Your task to perform on an android device: create a new album in the google photos Image 0: 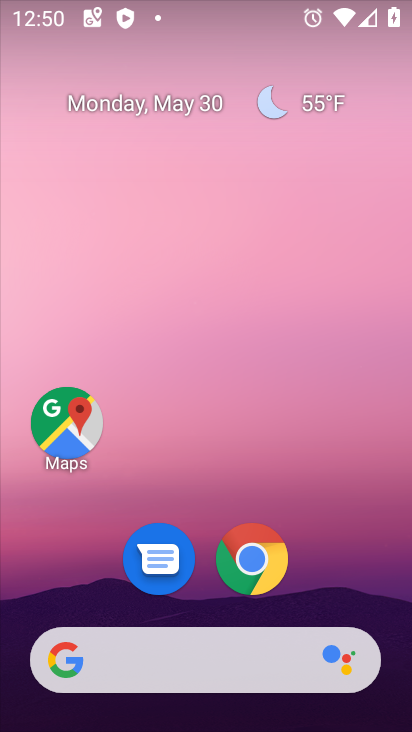
Step 0: drag from (176, 603) to (244, 98)
Your task to perform on an android device: create a new album in the google photos Image 1: 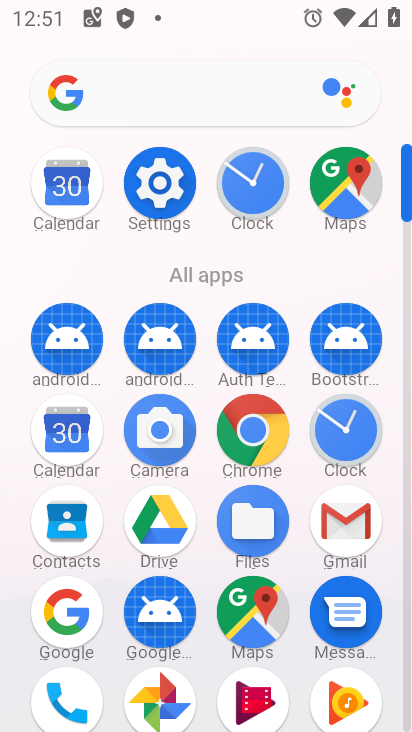
Step 1: click (163, 692)
Your task to perform on an android device: create a new album in the google photos Image 2: 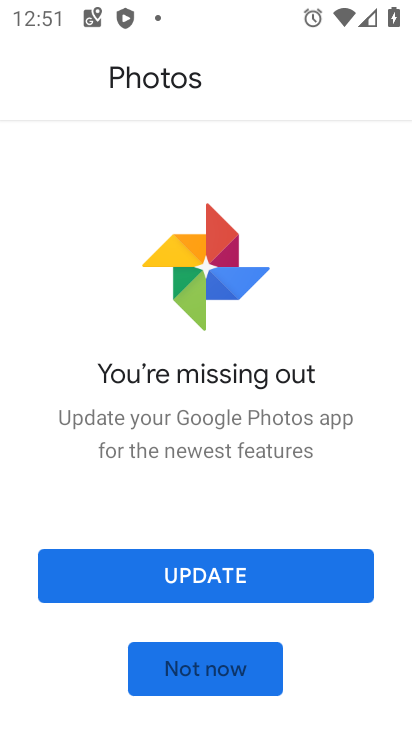
Step 2: click (181, 671)
Your task to perform on an android device: create a new album in the google photos Image 3: 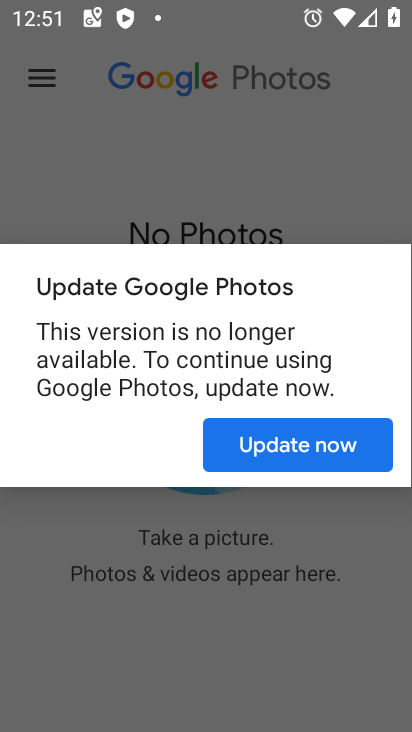
Step 3: click (264, 444)
Your task to perform on an android device: create a new album in the google photos Image 4: 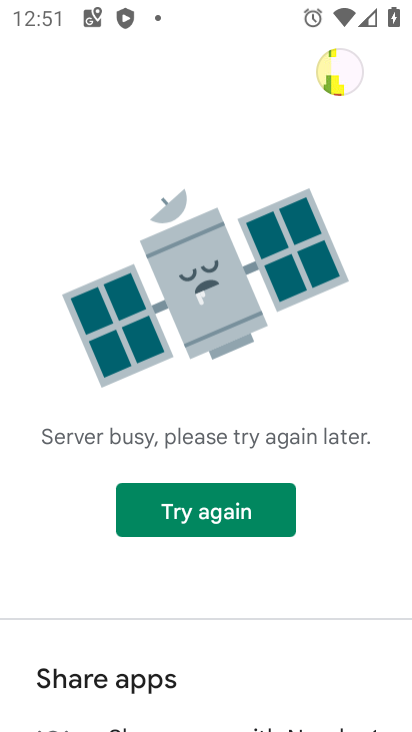
Step 4: press back button
Your task to perform on an android device: create a new album in the google photos Image 5: 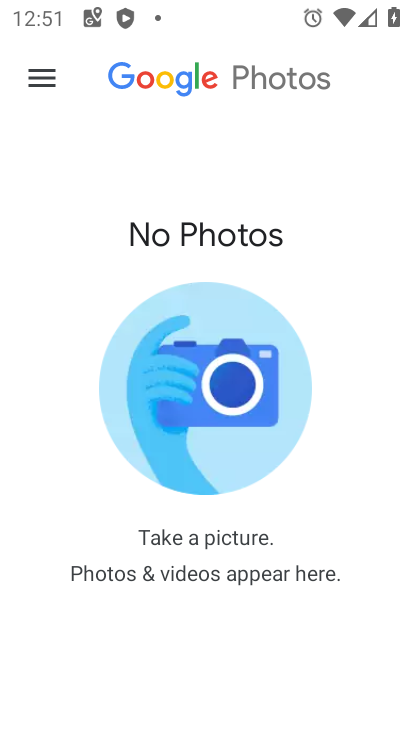
Step 5: press back button
Your task to perform on an android device: create a new album in the google photos Image 6: 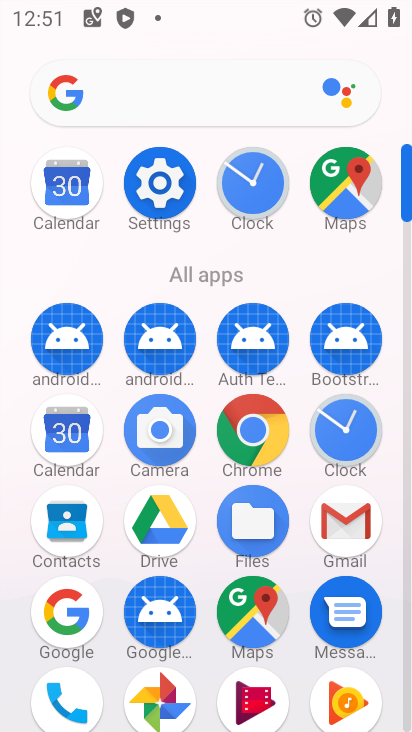
Step 6: click (159, 697)
Your task to perform on an android device: create a new album in the google photos Image 7: 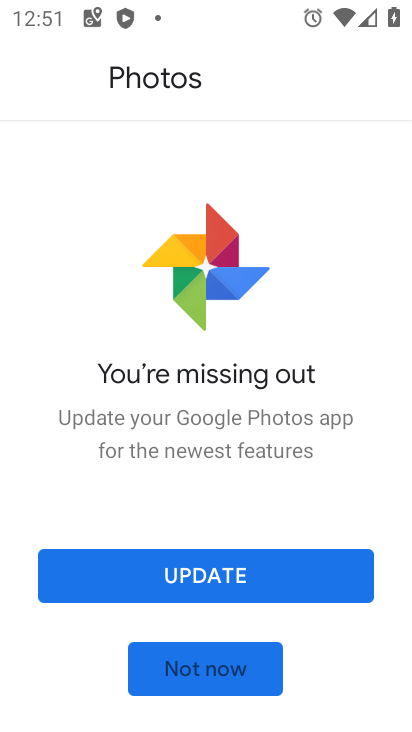
Step 7: click (192, 676)
Your task to perform on an android device: create a new album in the google photos Image 8: 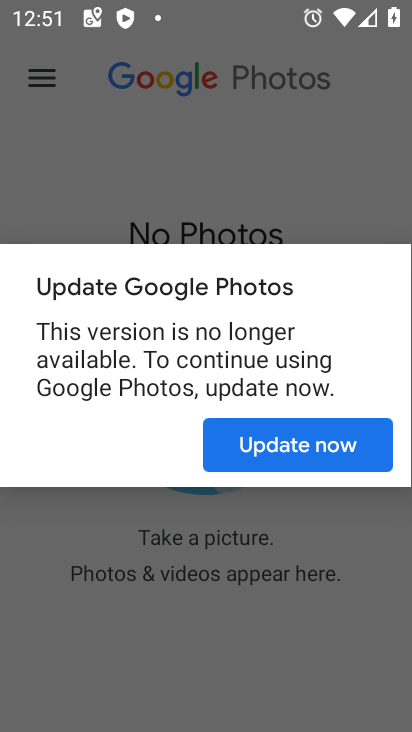
Step 8: click (315, 438)
Your task to perform on an android device: create a new album in the google photos Image 9: 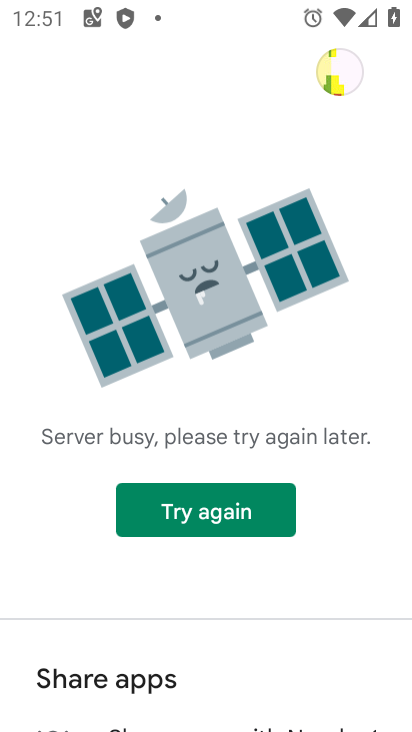
Step 9: click (195, 512)
Your task to perform on an android device: create a new album in the google photos Image 10: 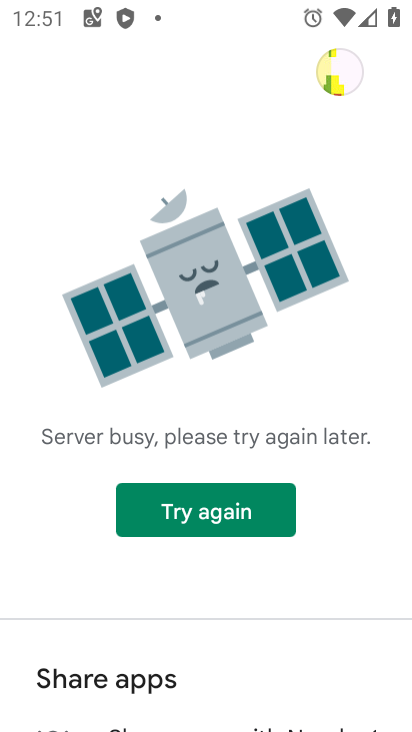
Step 10: press home button
Your task to perform on an android device: create a new album in the google photos Image 11: 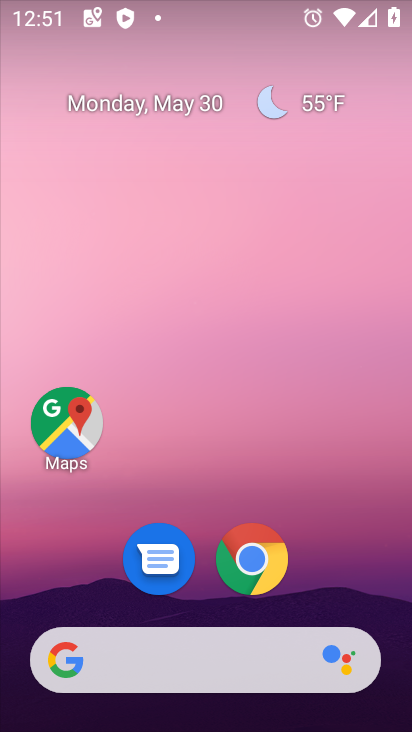
Step 11: drag from (217, 537) to (307, 2)
Your task to perform on an android device: create a new album in the google photos Image 12: 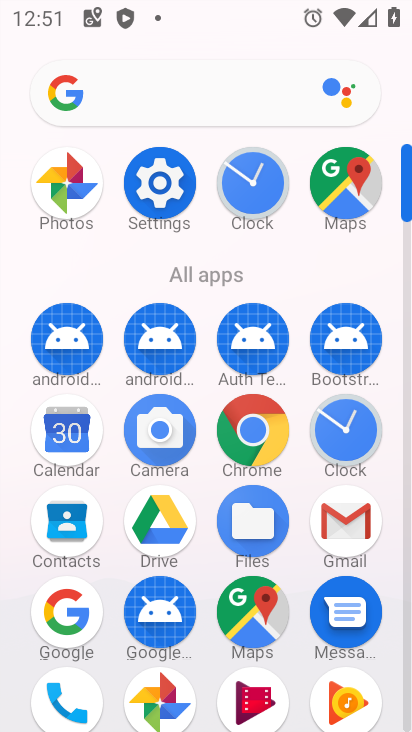
Step 12: click (165, 702)
Your task to perform on an android device: create a new album in the google photos Image 13: 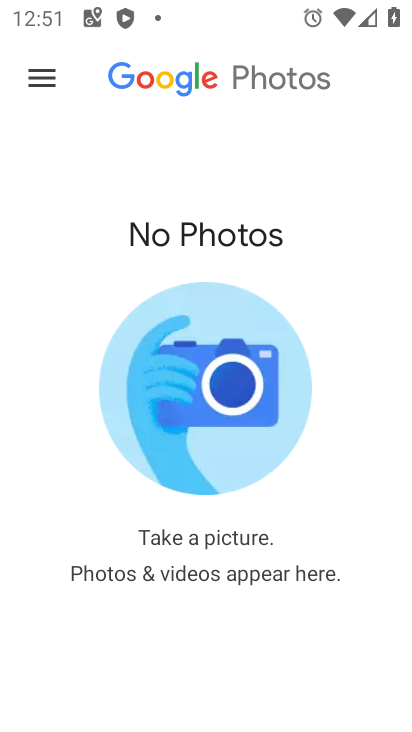
Step 13: task complete